Your task to perform on an android device: toggle airplane mode Image 0: 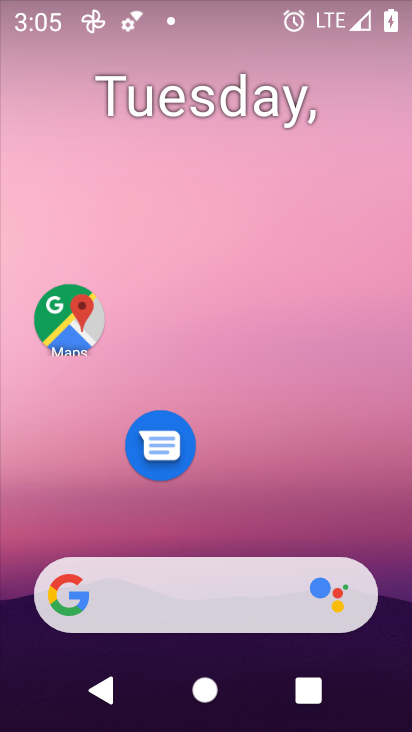
Step 0: drag from (274, 446) to (199, 3)
Your task to perform on an android device: toggle airplane mode Image 1: 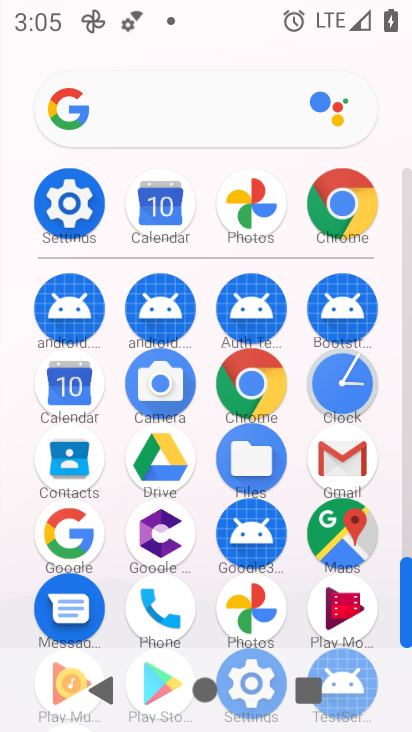
Step 1: click (49, 191)
Your task to perform on an android device: toggle airplane mode Image 2: 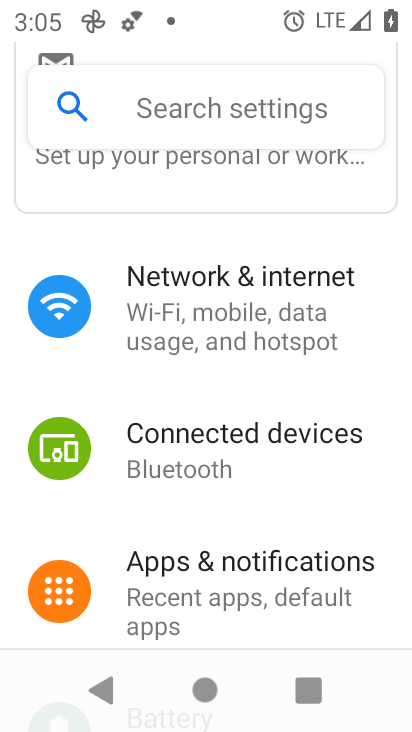
Step 2: click (180, 273)
Your task to perform on an android device: toggle airplane mode Image 3: 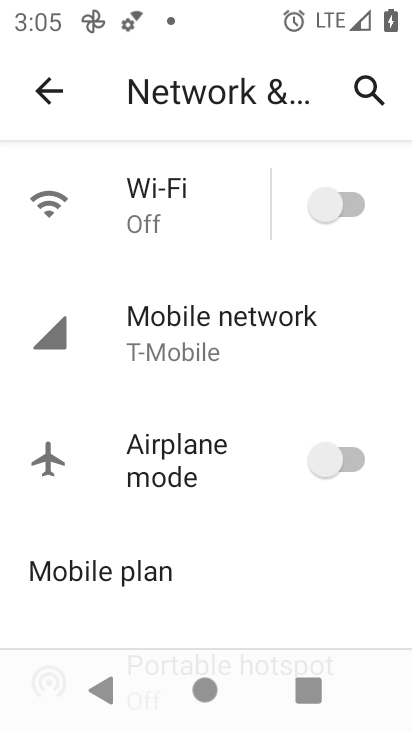
Step 3: click (323, 455)
Your task to perform on an android device: toggle airplane mode Image 4: 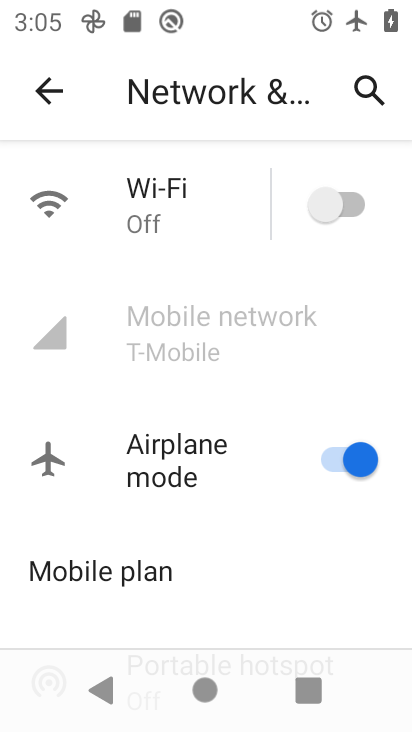
Step 4: task complete